Your task to perform on an android device: Clear the shopping cart on costco. Search for "acer nitro" on costco, select the first entry, add it to the cart, then select checkout. Image 0: 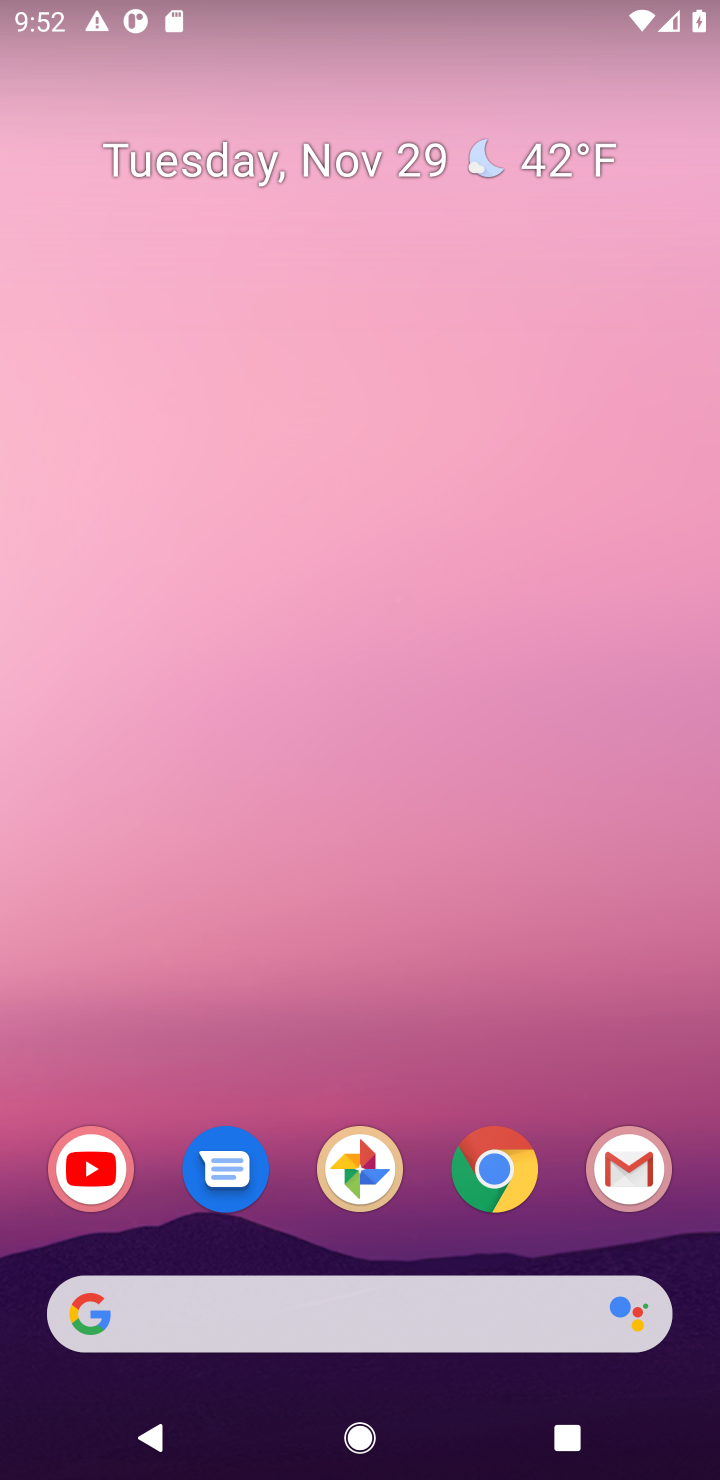
Step 0: click (356, 1335)
Your task to perform on an android device: Clear the shopping cart on costco. Search for "acer nitro" on costco, select the first entry, add it to the cart, then select checkout. Image 1: 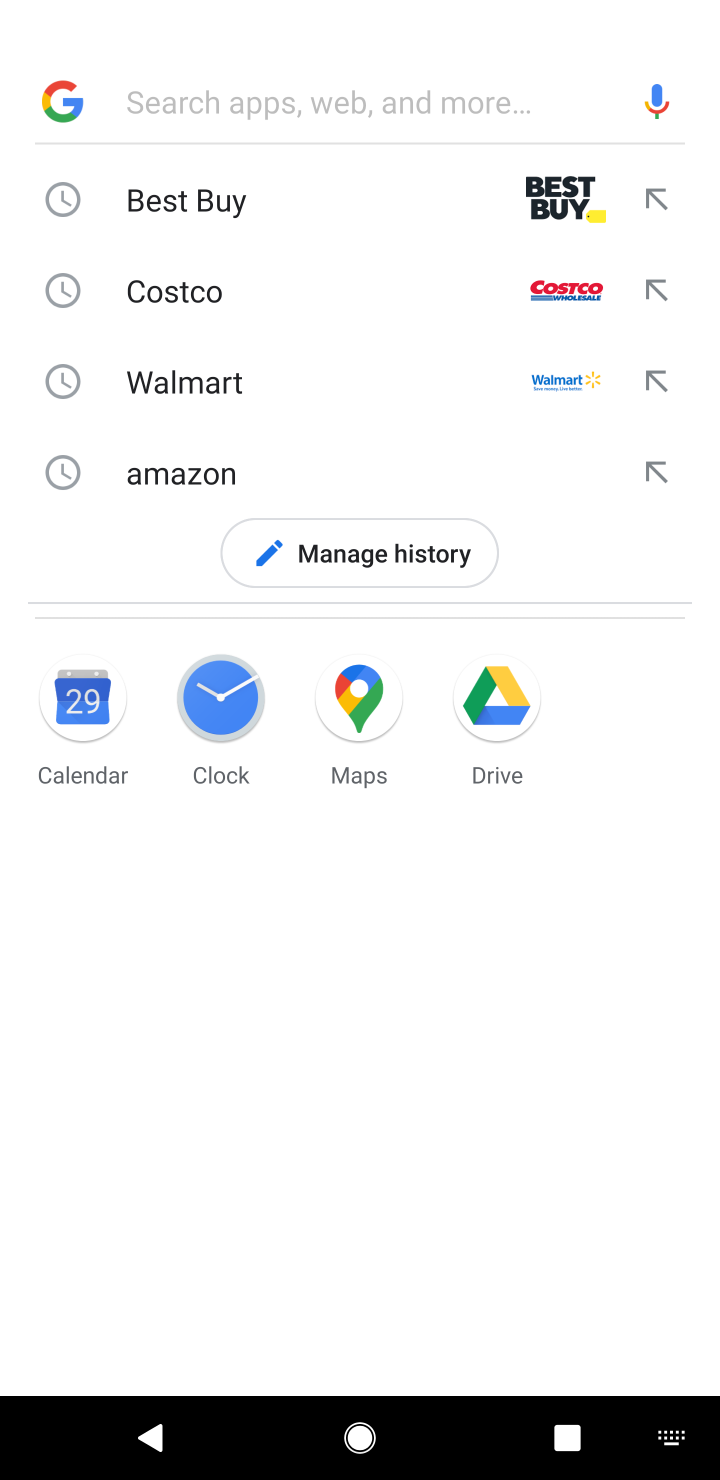
Step 1: click (260, 289)
Your task to perform on an android device: Clear the shopping cart on costco. Search for "acer nitro" on costco, select the first entry, add it to the cart, then select checkout. Image 2: 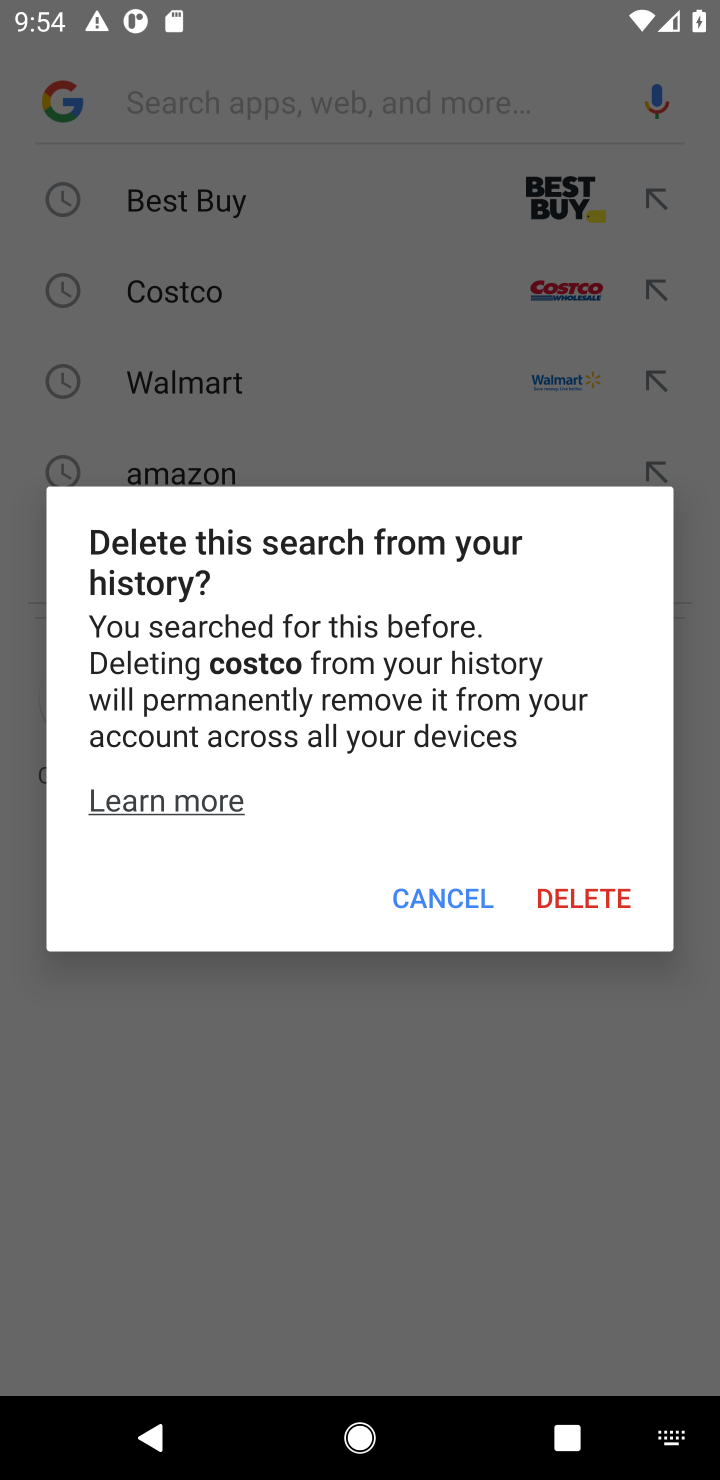
Step 2: click (435, 923)
Your task to perform on an android device: Clear the shopping cart on costco. Search for "acer nitro" on costco, select the first entry, add it to the cart, then select checkout. Image 3: 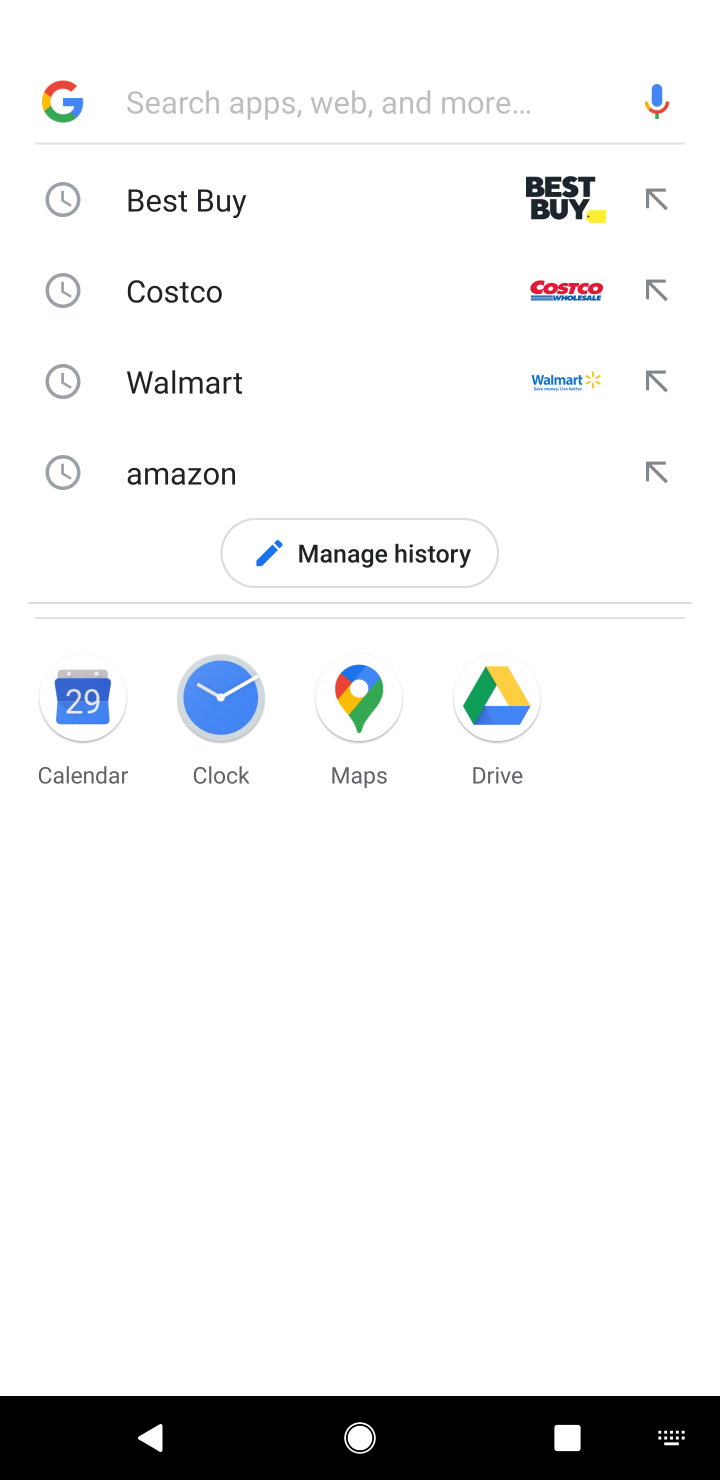
Step 3: click (194, 291)
Your task to perform on an android device: Clear the shopping cart on costco. Search for "acer nitro" on costco, select the first entry, add it to the cart, then select checkout. Image 4: 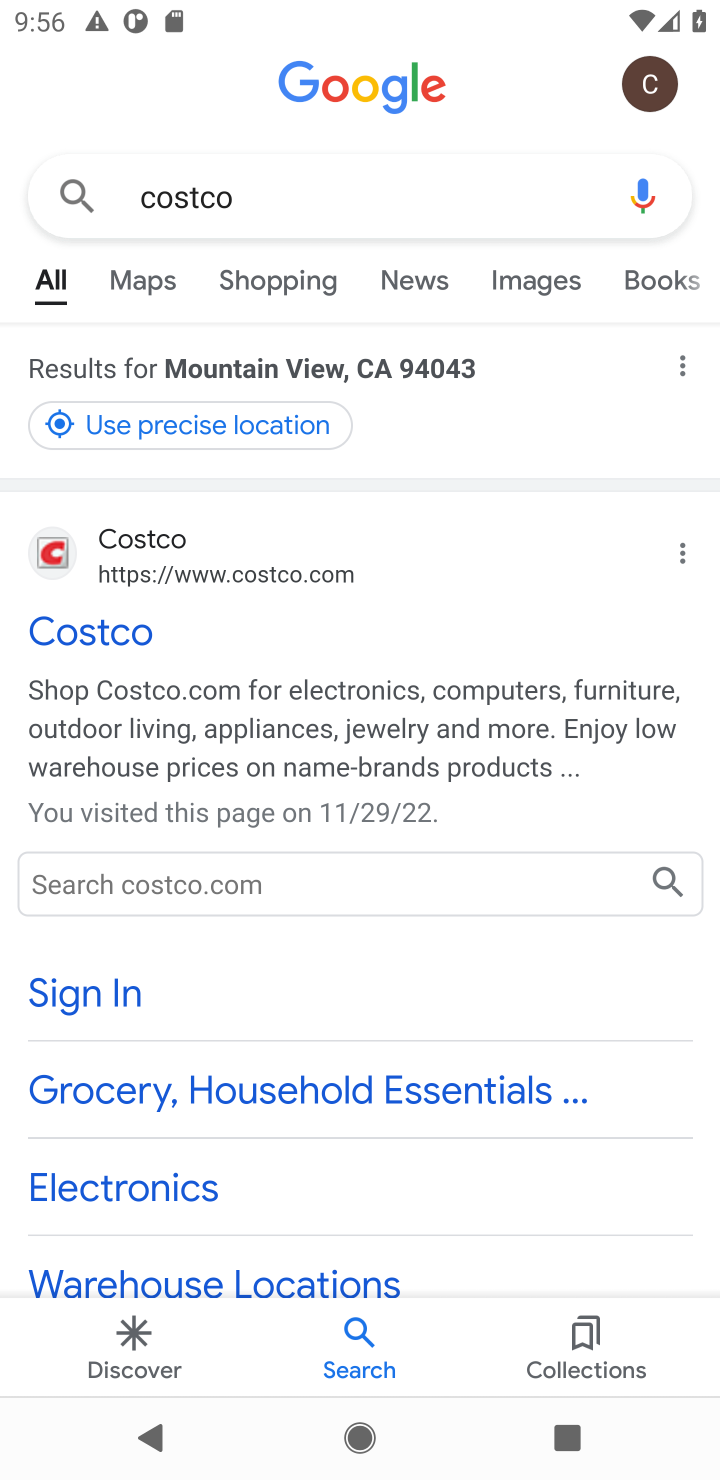
Step 4: click (123, 644)
Your task to perform on an android device: Clear the shopping cart on costco. Search for "acer nitro" on costco, select the first entry, add it to the cart, then select checkout. Image 5: 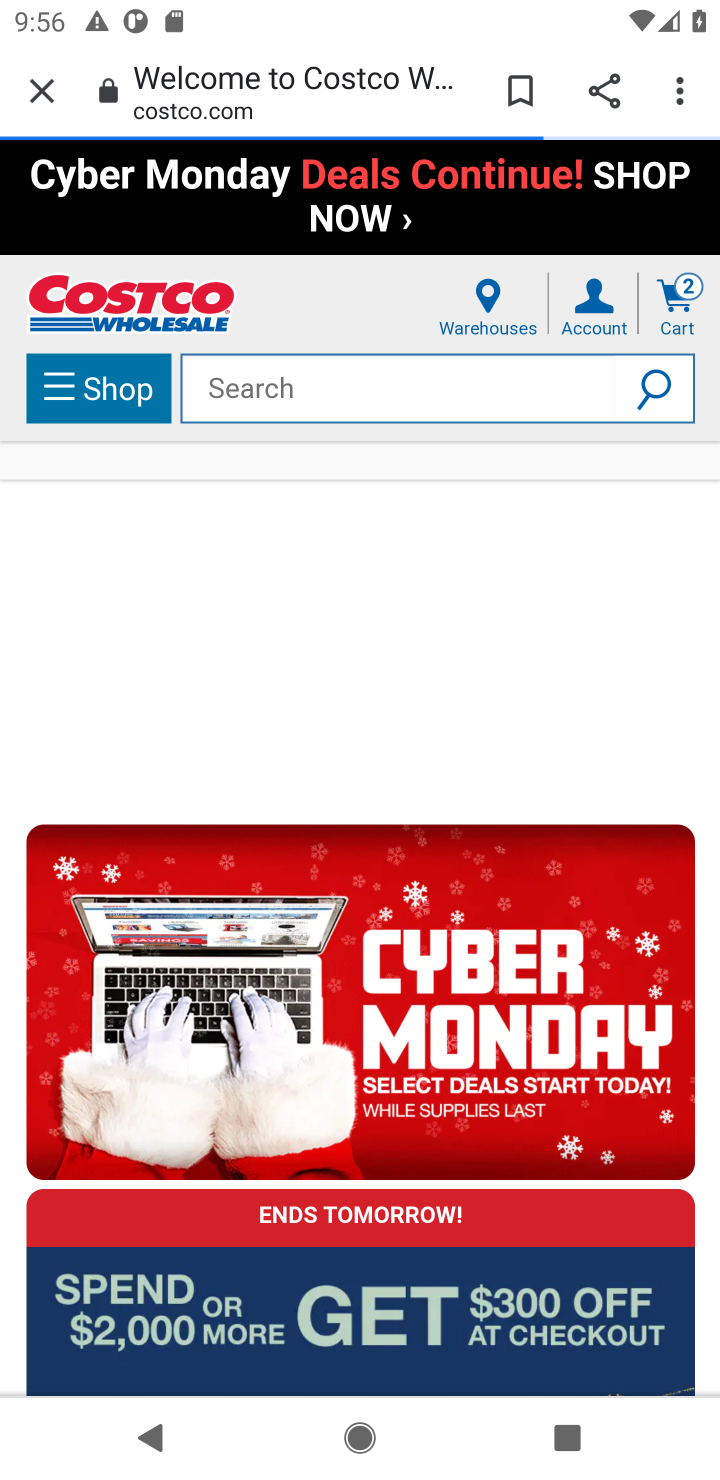
Step 5: click (281, 393)
Your task to perform on an android device: Clear the shopping cart on costco. Search for "acer nitro" on costco, select the first entry, add it to the cart, then select checkout. Image 6: 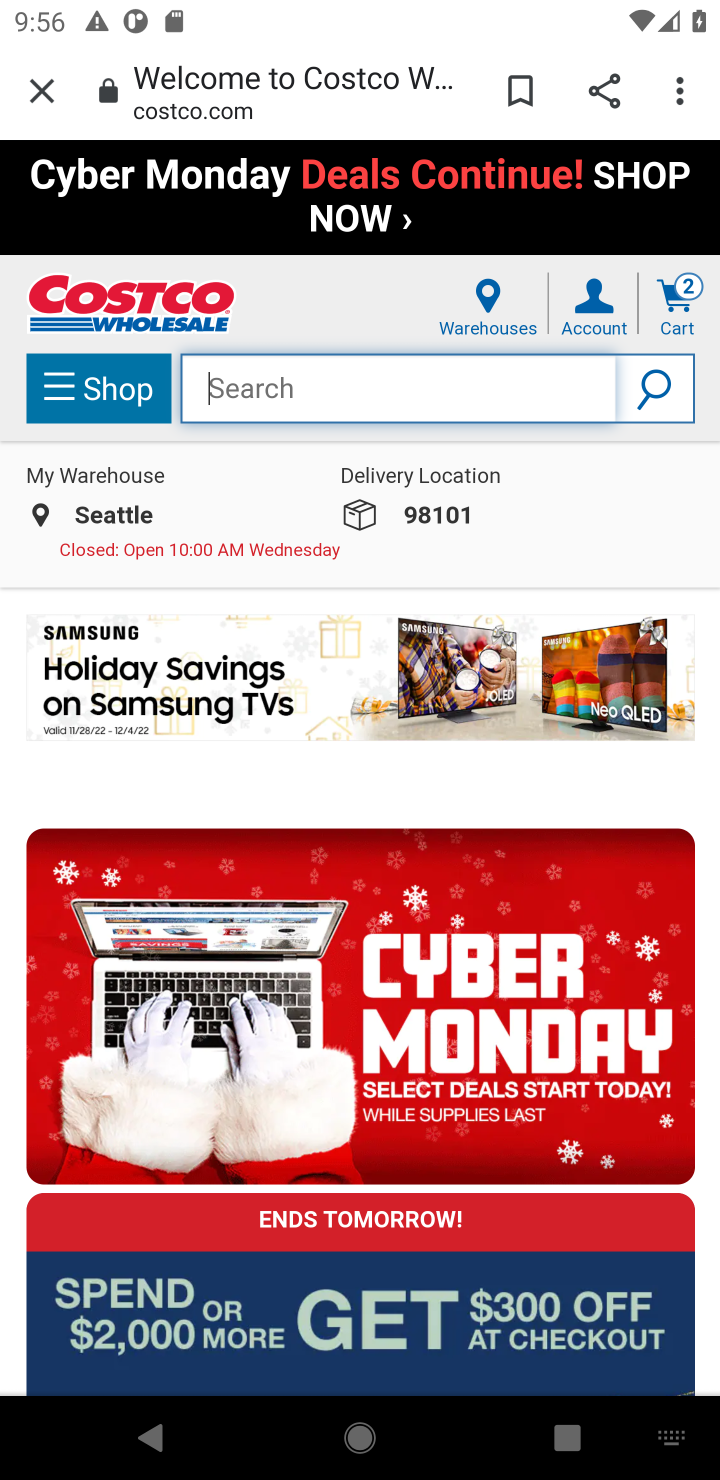
Step 6: type "acer nirtio"
Your task to perform on an android device: Clear the shopping cart on costco. Search for "acer nitro" on costco, select the first entry, add it to the cart, then select checkout. Image 7: 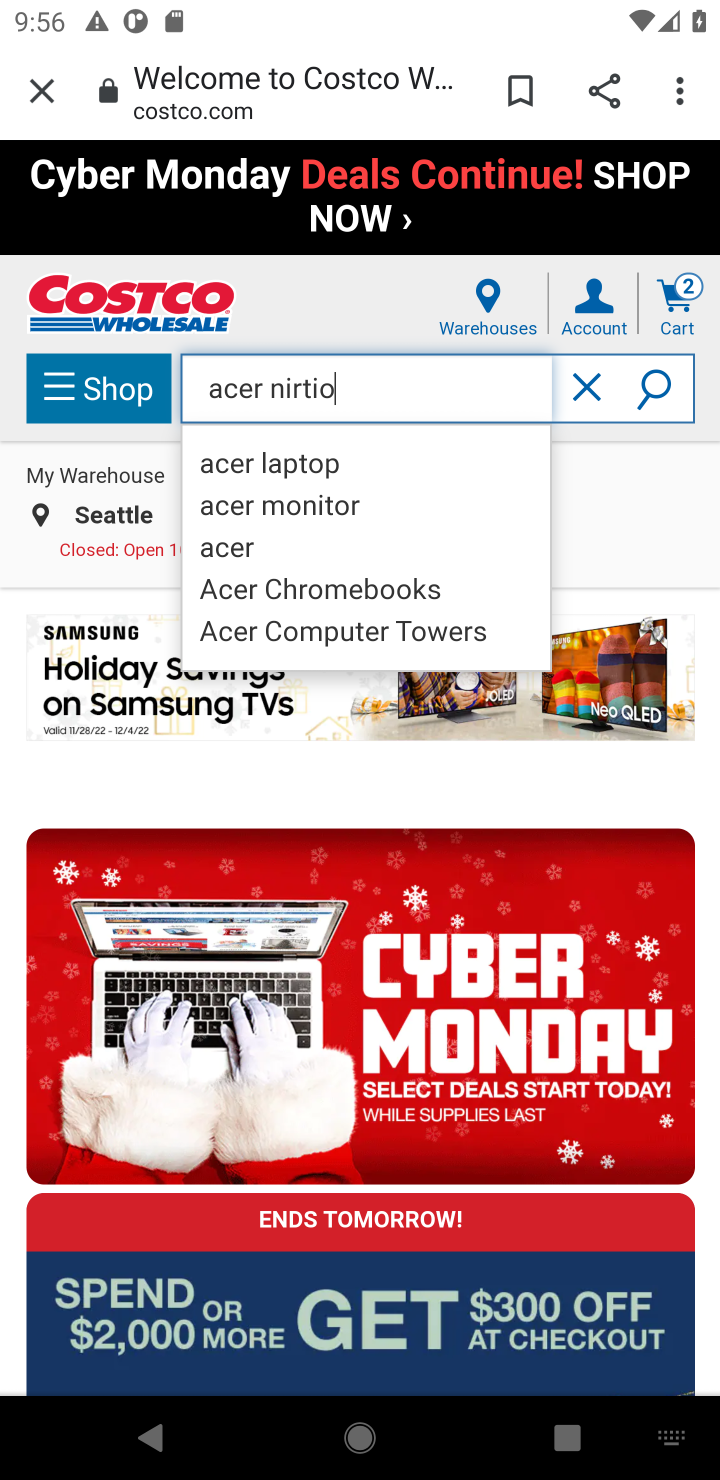
Step 7: click (255, 464)
Your task to perform on an android device: Clear the shopping cart on costco. Search for "acer nitro" on costco, select the first entry, add it to the cart, then select checkout. Image 8: 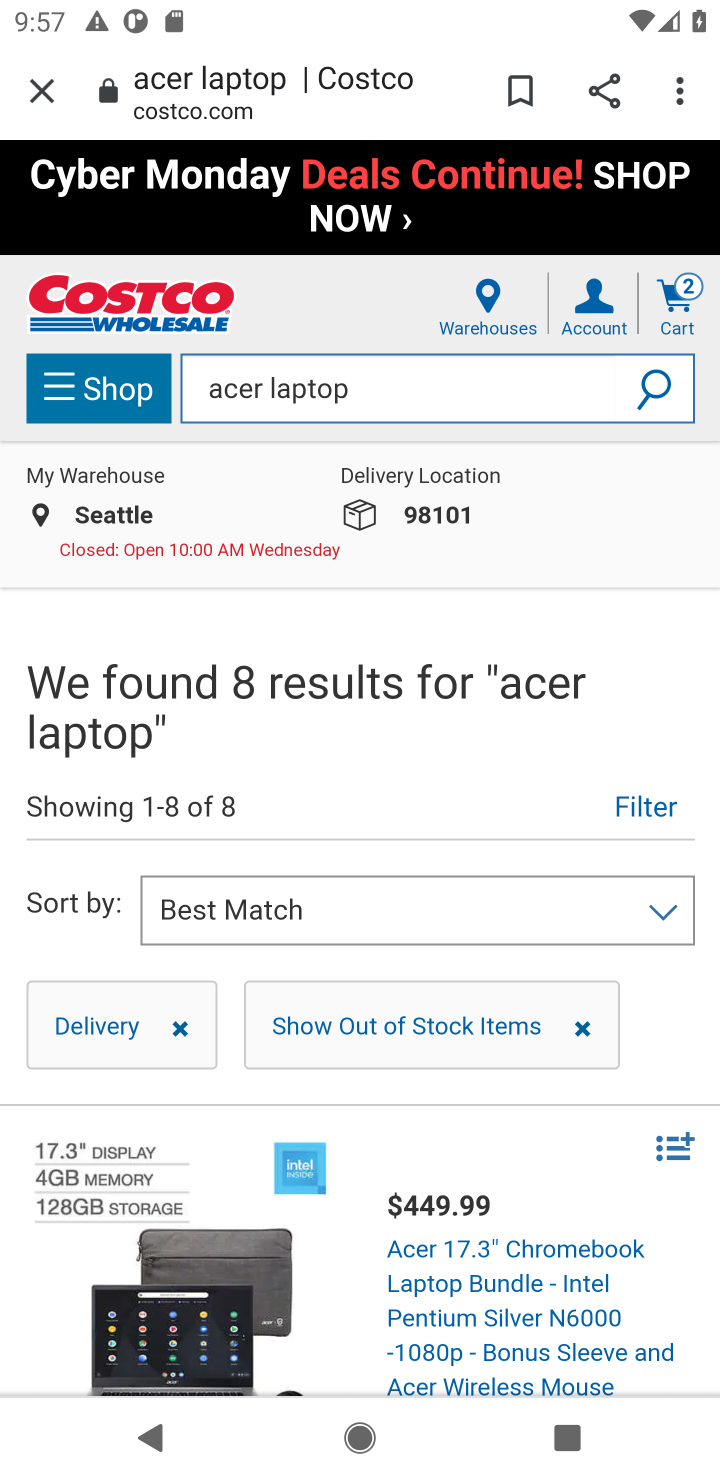
Step 8: click (402, 1308)
Your task to perform on an android device: Clear the shopping cart on costco. Search for "acer nitro" on costco, select the first entry, add it to the cart, then select checkout. Image 9: 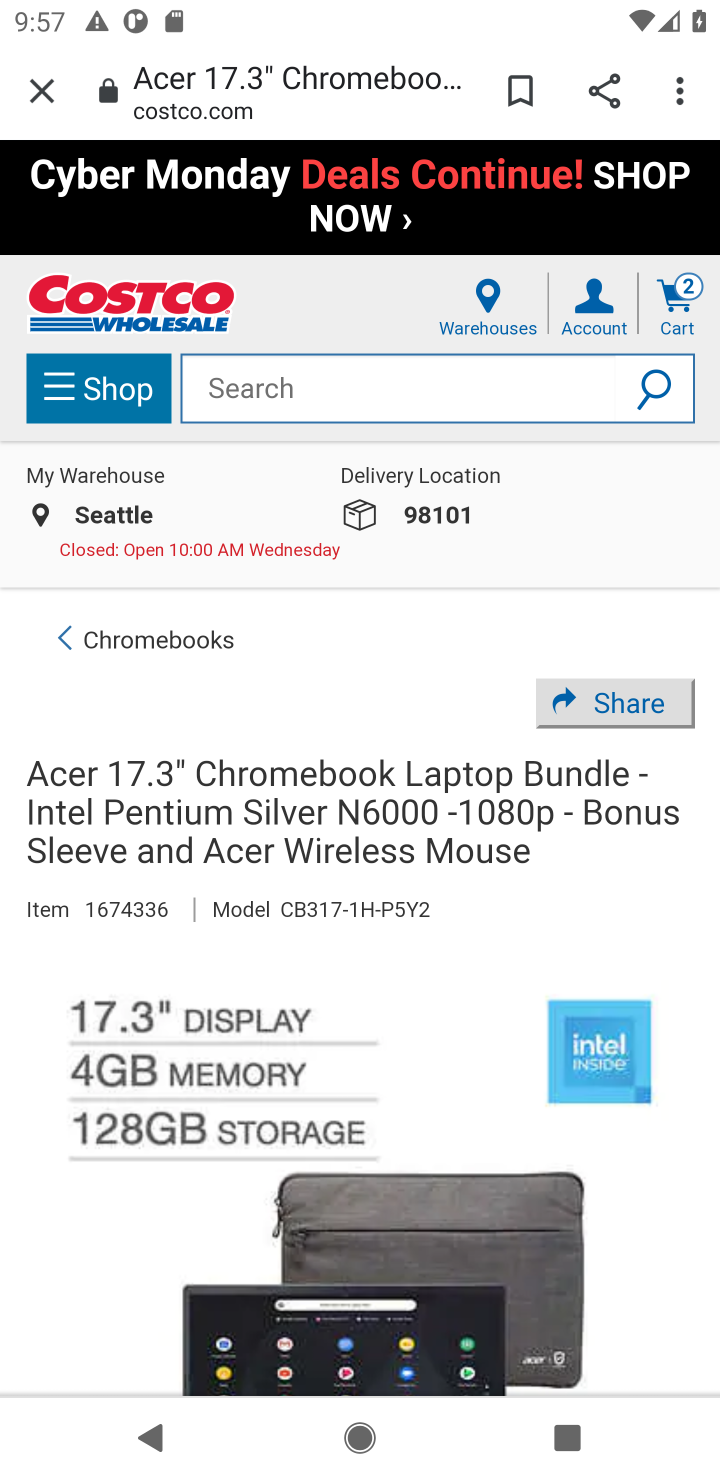
Step 9: task complete